Your task to perform on an android device: What's the news in the Dominican Republic? Image 0: 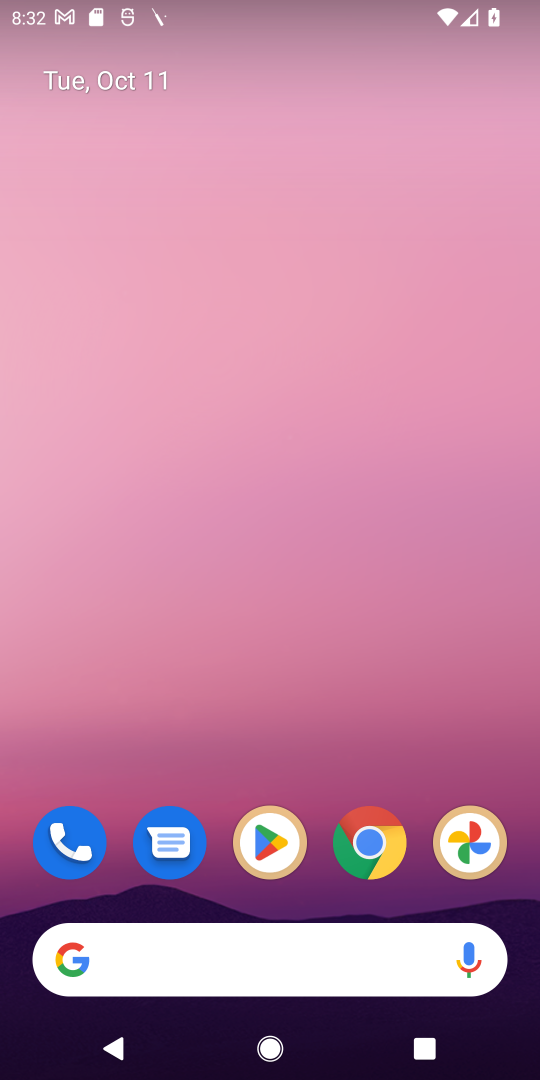
Step 0: click (367, 850)
Your task to perform on an android device: What's the news in the Dominican Republic? Image 1: 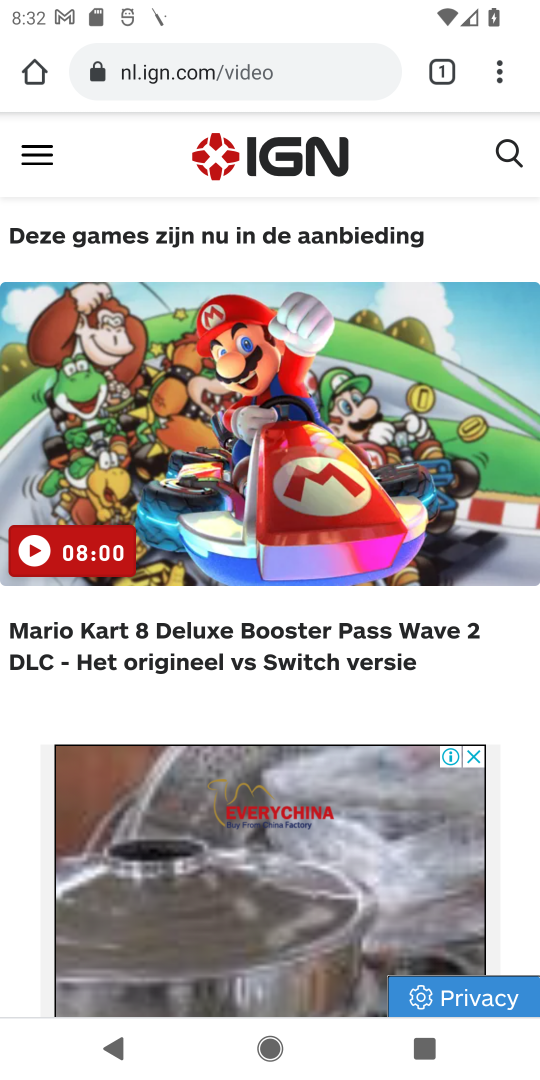
Step 1: click (194, 73)
Your task to perform on an android device: What's the news in the Dominican Republic? Image 2: 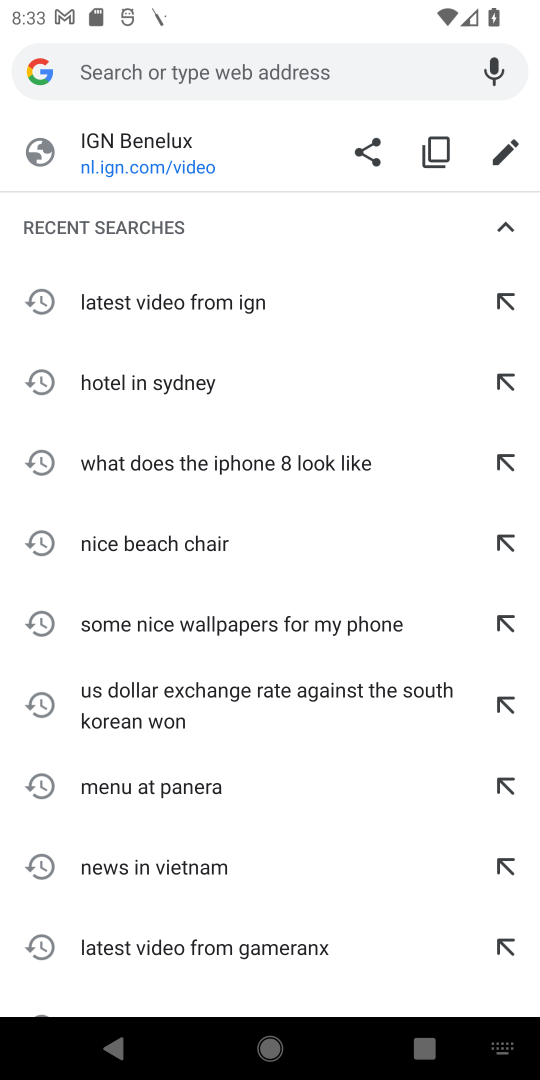
Step 2: type "news in dominican republic"
Your task to perform on an android device: What's the news in the Dominican Republic? Image 3: 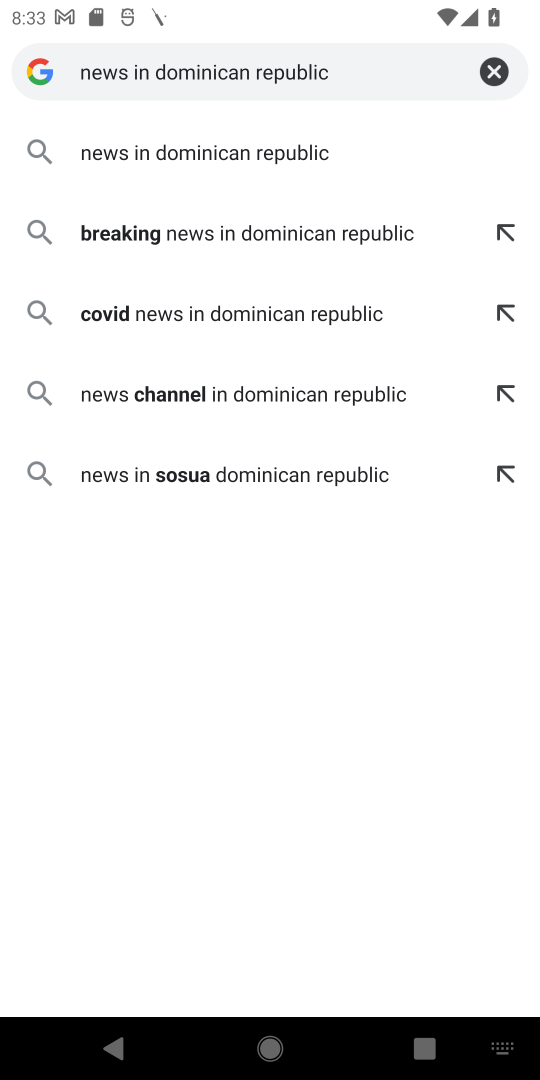
Step 3: click (236, 150)
Your task to perform on an android device: What's the news in the Dominican Republic? Image 4: 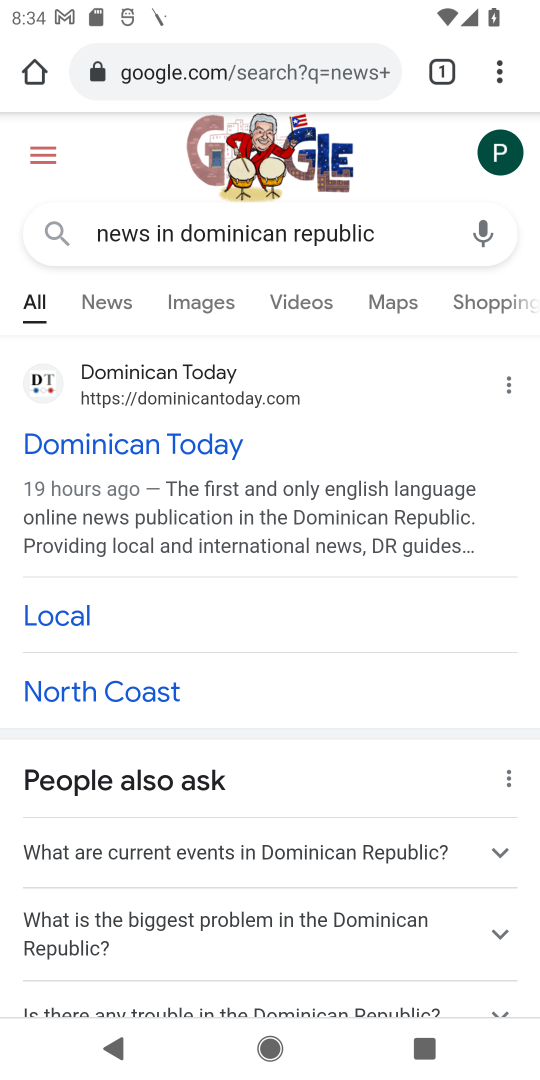
Step 4: drag from (302, 651) to (344, 275)
Your task to perform on an android device: What's the news in the Dominican Republic? Image 5: 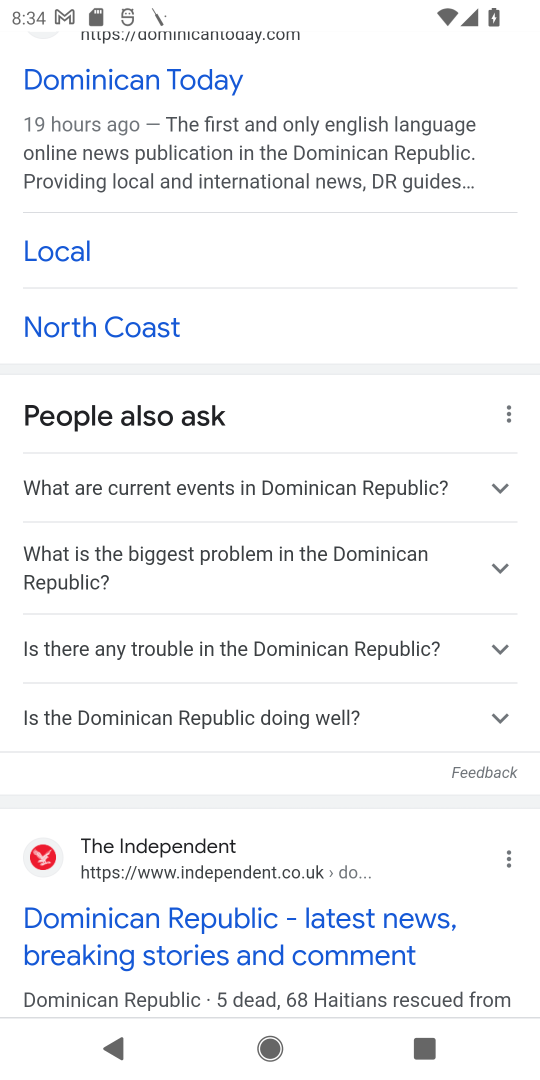
Step 5: click (124, 916)
Your task to perform on an android device: What's the news in the Dominican Republic? Image 6: 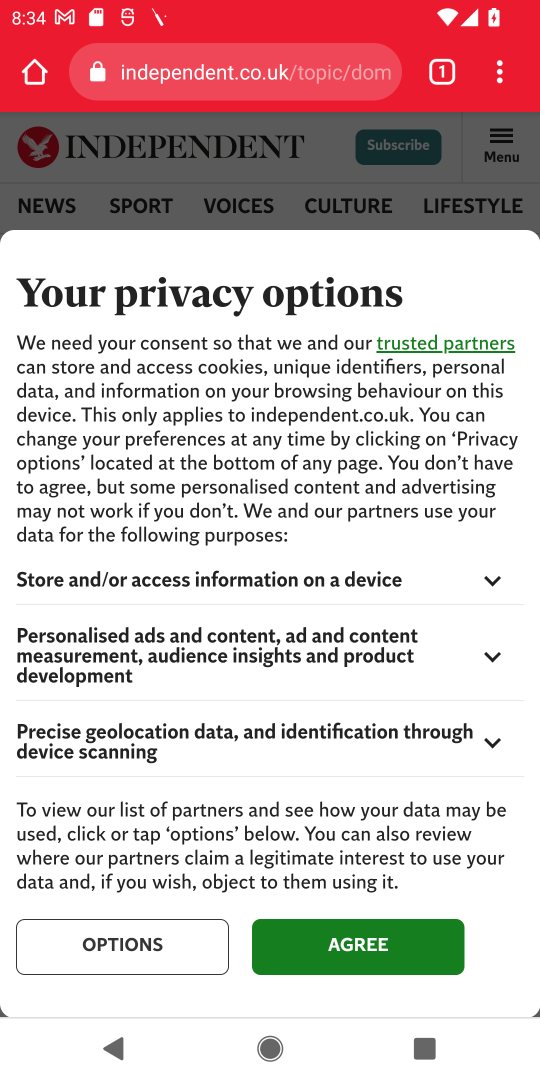
Step 6: click (345, 954)
Your task to perform on an android device: What's the news in the Dominican Republic? Image 7: 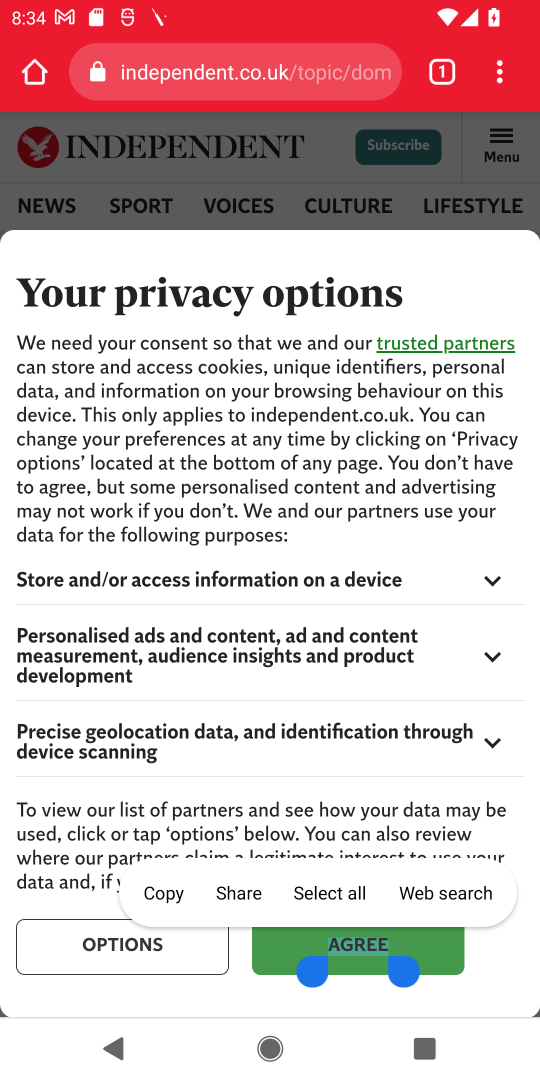
Step 7: click (345, 951)
Your task to perform on an android device: What's the news in the Dominican Republic? Image 8: 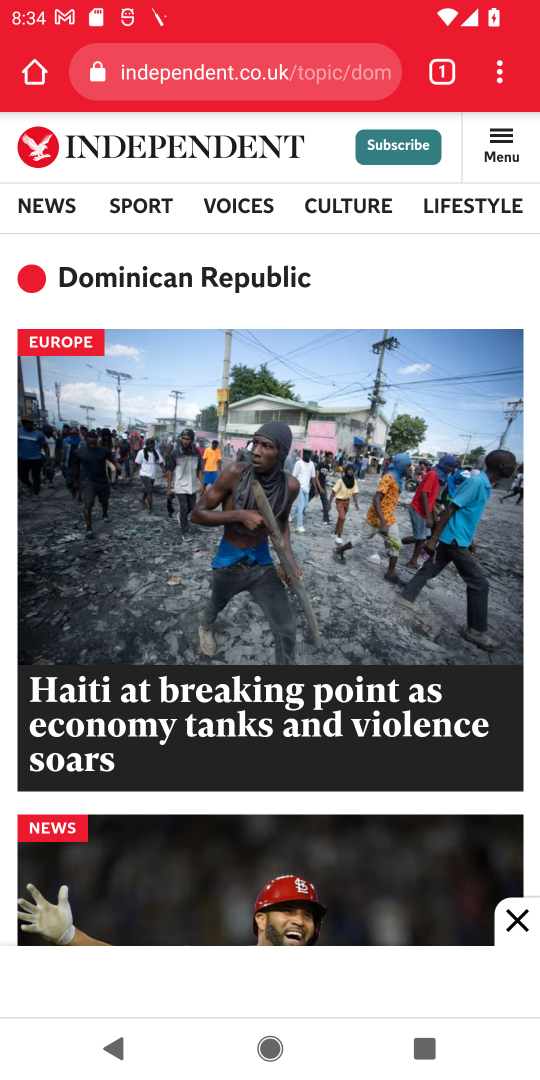
Step 8: click (521, 923)
Your task to perform on an android device: What's the news in the Dominican Republic? Image 9: 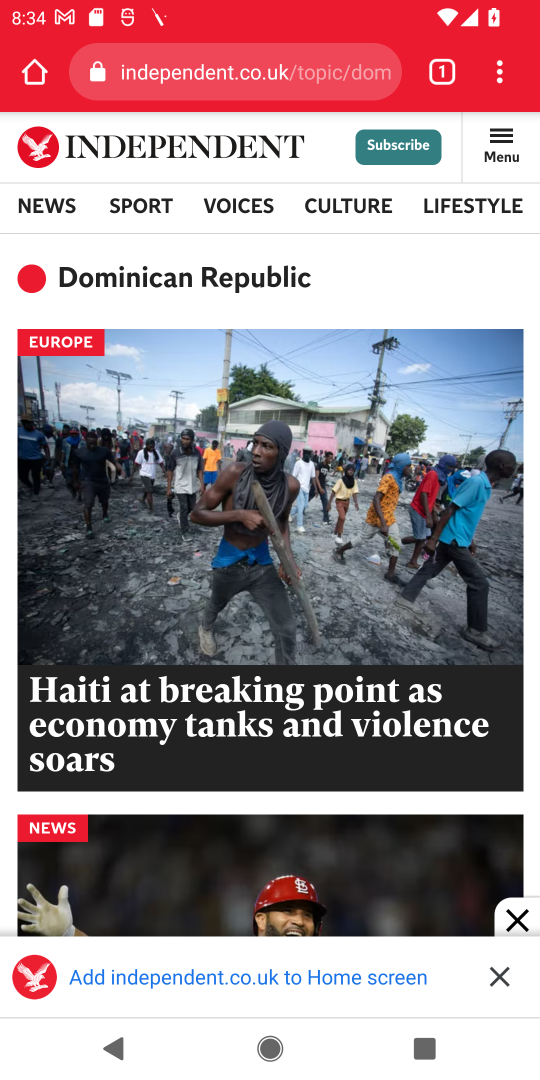
Step 9: click (44, 202)
Your task to perform on an android device: What's the news in the Dominican Republic? Image 10: 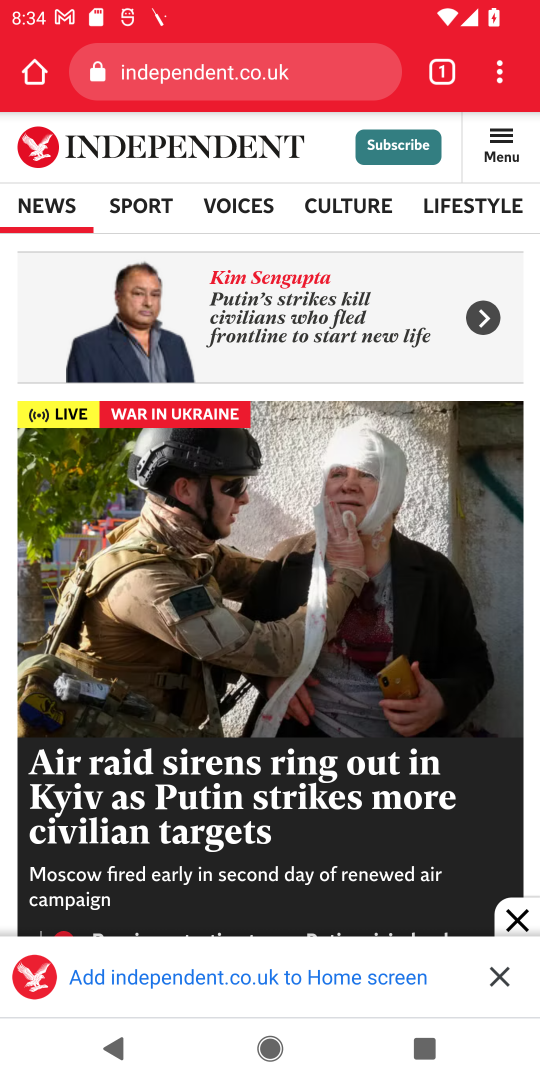
Step 10: click (495, 980)
Your task to perform on an android device: What's the news in the Dominican Republic? Image 11: 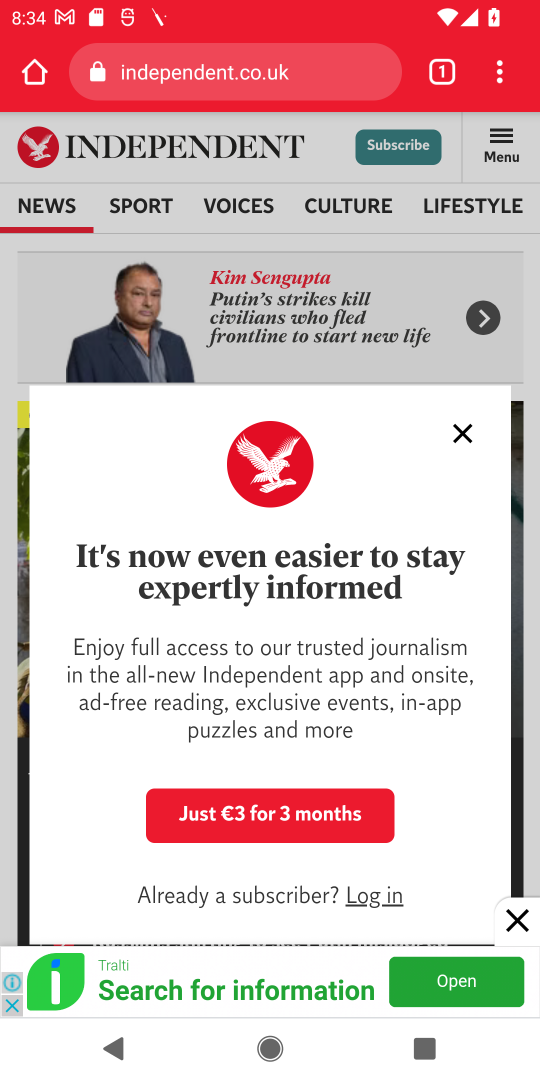
Step 11: click (462, 429)
Your task to perform on an android device: What's the news in the Dominican Republic? Image 12: 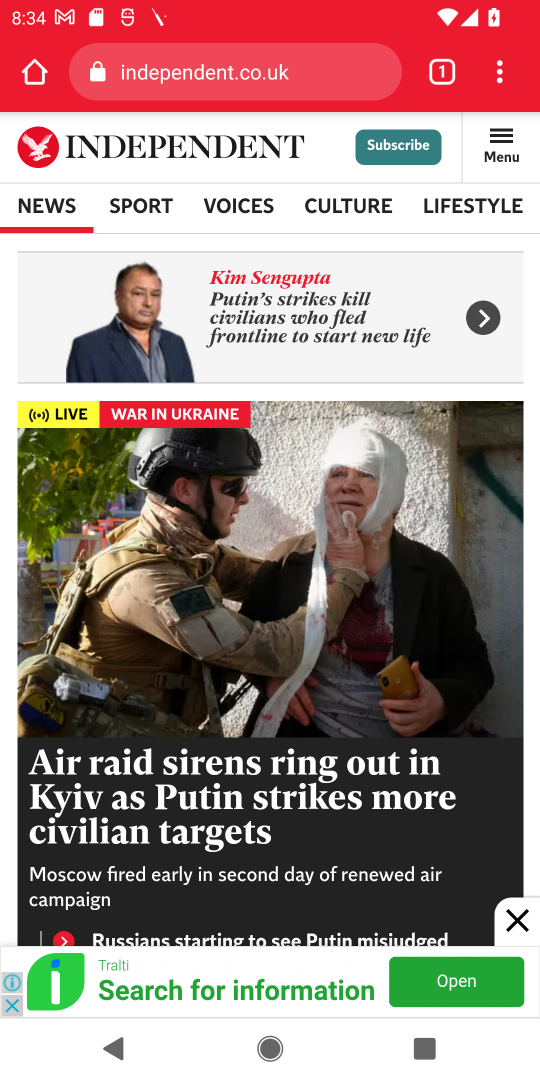
Step 12: click (509, 920)
Your task to perform on an android device: What's the news in the Dominican Republic? Image 13: 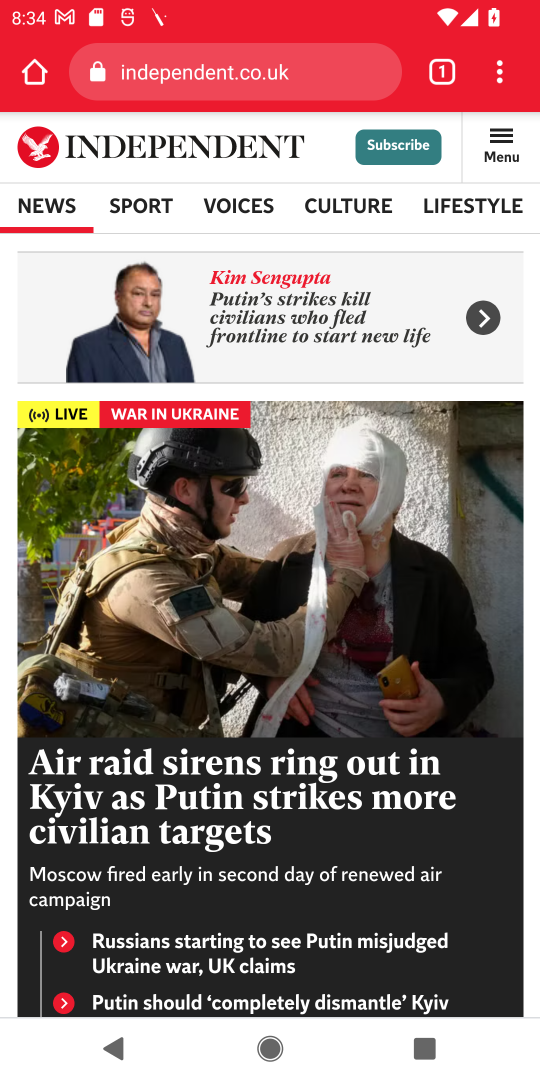
Step 13: task complete